Your task to perform on an android device: find which apps use the phone's location Image 0: 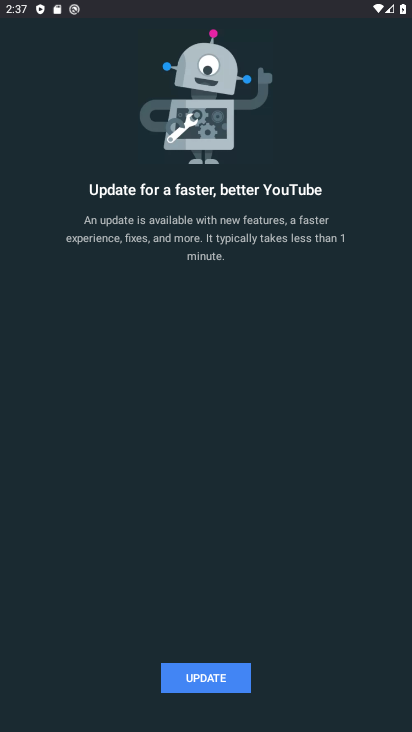
Step 0: press home button
Your task to perform on an android device: find which apps use the phone's location Image 1: 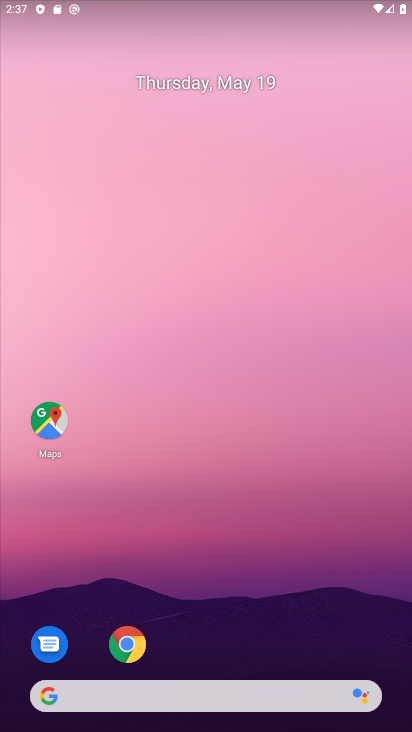
Step 1: drag from (217, 646) to (240, 232)
Your task to perform on an android device: find which apps use the phone's location Image 2: 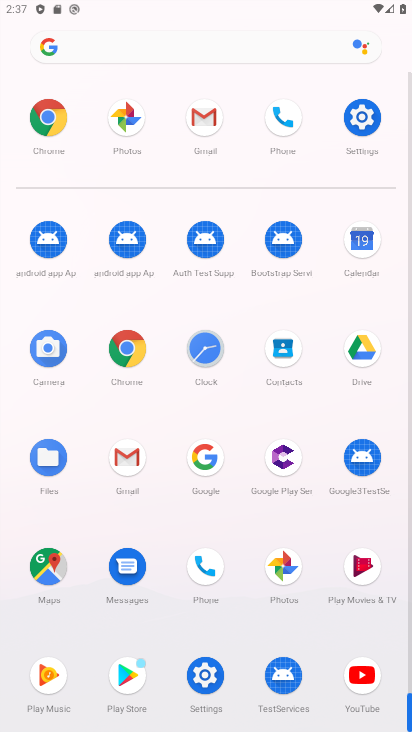
Step 2: click (363, 110)
Your task to perform on an android device: find which apps use the phone's location Image 3: 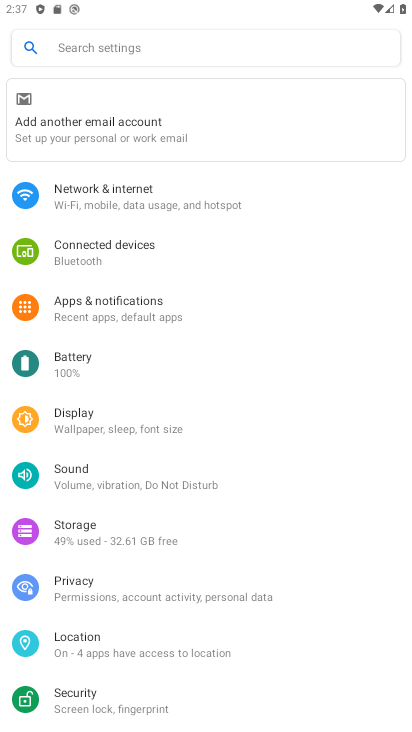
Step 3: click (96, 639)
Your task to perform on an android device: find which apps use the phone's location Image 4: 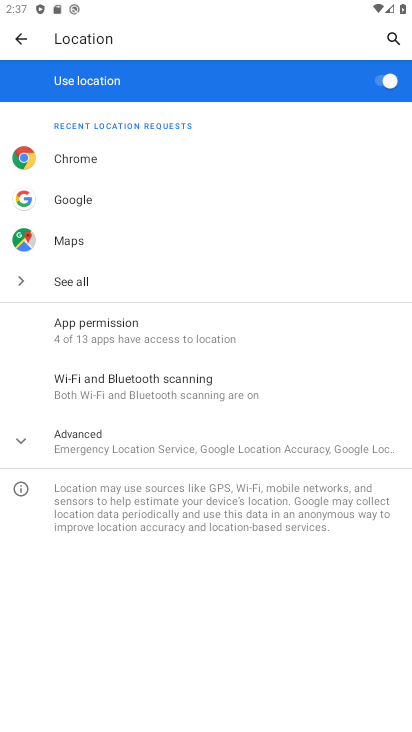
Step 4: task complete